Your task to perform on an android device: Search for a dining table on crateandbarrel.com Image 0: 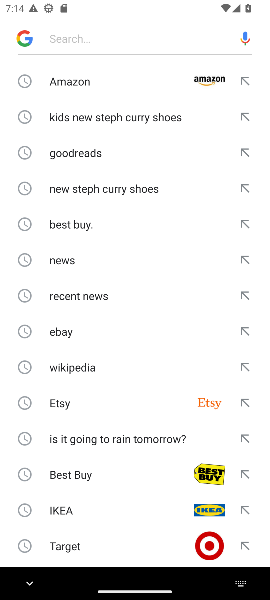
Step 0: click (126, 36)
Your task to perform on an android device: Search for a dining table on crateandbarrel.com Image 1: 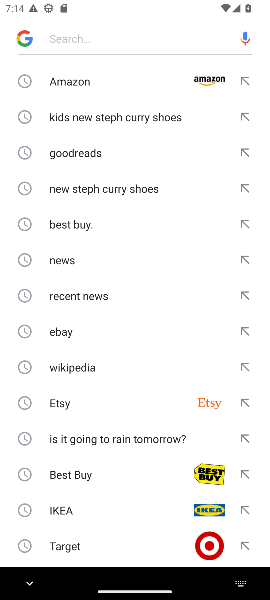
Step 1: type "crateandbarrel"
Your task to perform on an android device: Search for a dining table on crateandbarrel.com Image 2: 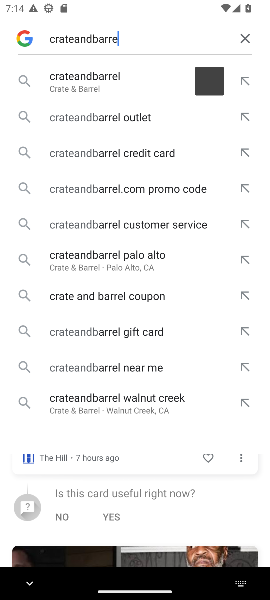
Step 2: press enter
Your task to perform on an android device: Search for a dining table on crateandbarrel.com Image 3: 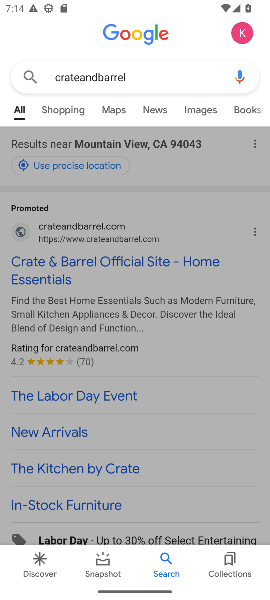
Step 3: click (81, 264)
Your task to perform on an android device: Search for a dining table on crateandbarrel.com Image 4: 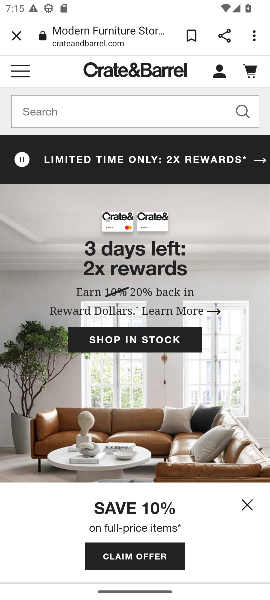
Step 4: click (77, 118)
Your task to perform on an android device: Search for a dining table on crateandbarrel.com Image 5: 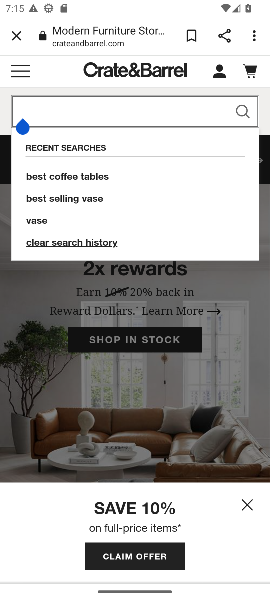
Step 5: type "dining table"
Your task to perform on an android device: Search for a dining table on crateandbarrel.com Image 6: 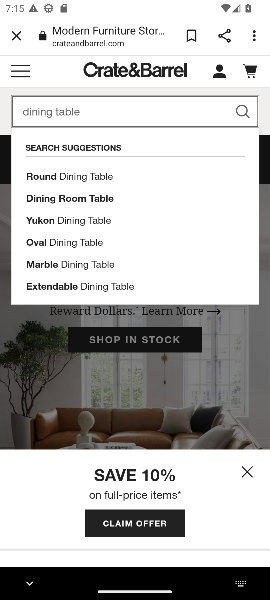
Step 6: press enter
Your task to perform on an android device: Search for a dining table on crateandbarrel.com Image 7: 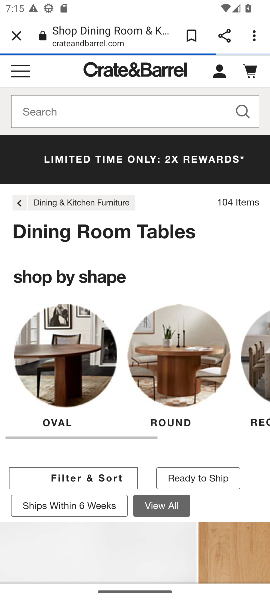
Step 7: click (247, 473)
Your task to perform on an android device: Search for a dining table on crateandbarrel.com Image 8: 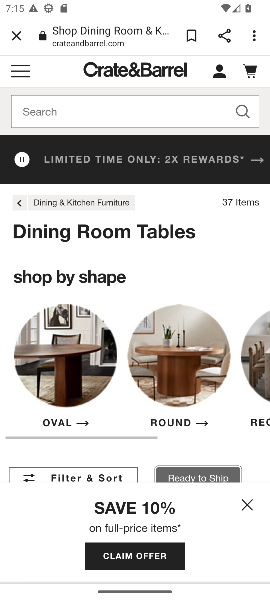
Step 8: click (249, 507)
Your task to perform on an android device: Search for a dining table on crateandbarrel.com Image 9: 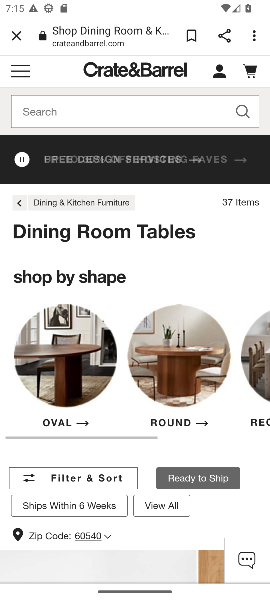
Step 9: drag from (107, 477) to (150, 261)
Your task to perform on an android device: Search for a dining table on crateandbarrel.com Image 10: 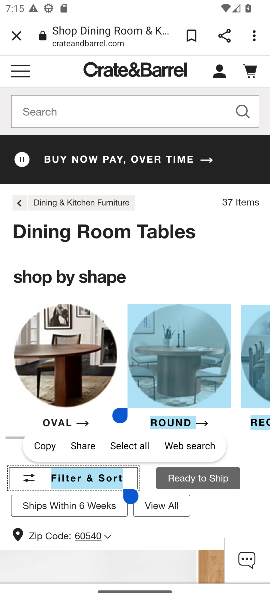
Step 10: click (14, 452)
Your task to perform on an android device: Search for a dining table on crateandbarrel.com Image 11: 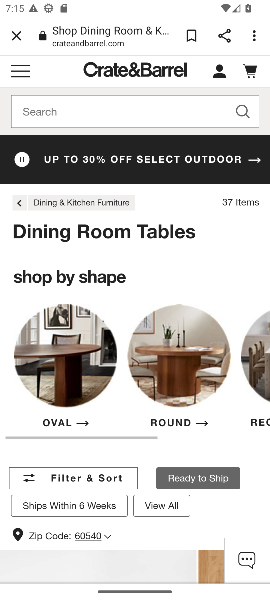
Step 11: click (194, 249)
Your task to perform on an android device: Search for a dining table on crateandbarrel.com Image 12: 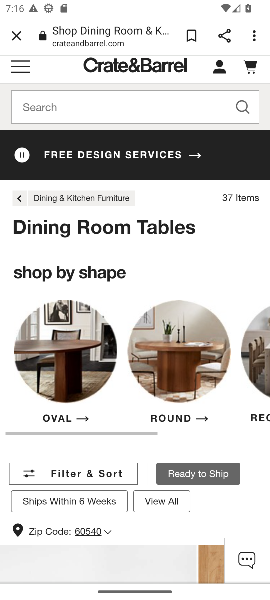
Step 12: click (238, 313)
Your task to perform on an android device: Search for a dining table on crateandbarrel.com Image 13: 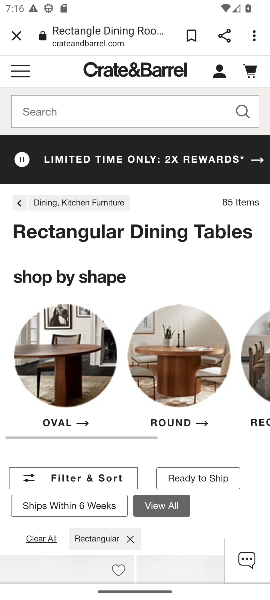
Step 13: task complete